Your task to perform on an android device: Turn on the flashlight Image 0: 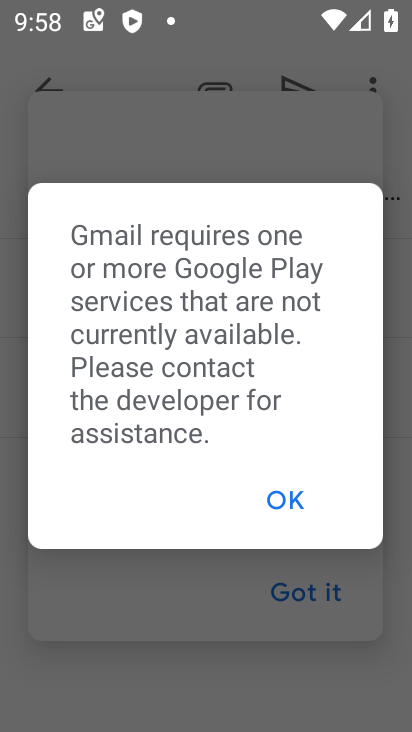
Step 0: press home button
Your task to perform on an android device: Turn on the flashlight Image 1: 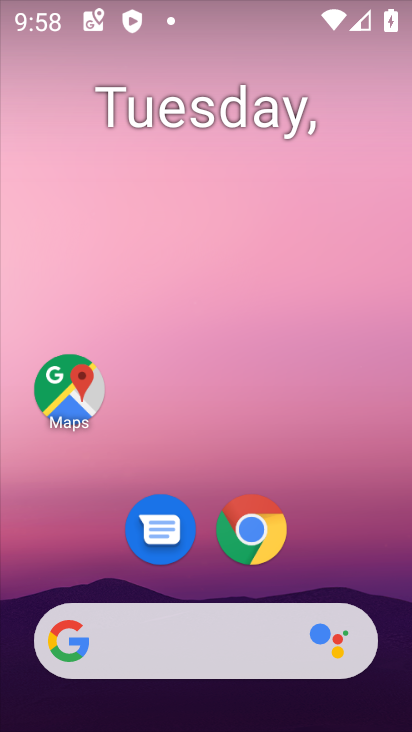
Step 1: task complete